Your task to perform on an android device: move an email to a new category in the gmail app Image 0: 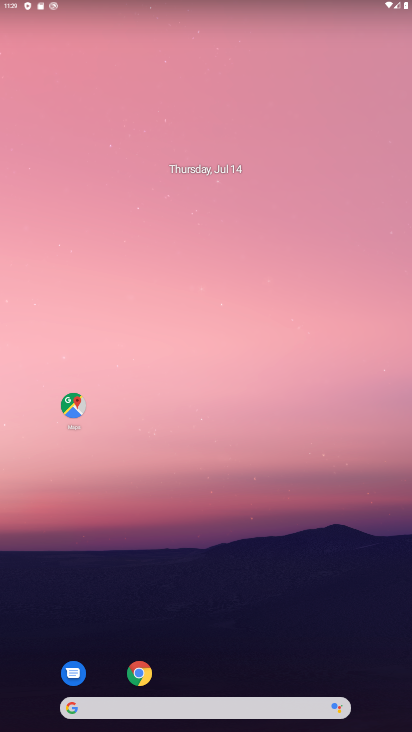
Step 0: drag from (248, 650) to (198, 109)
Your task to perform on an android device: move an email to a new category in the gmail app Image 1: 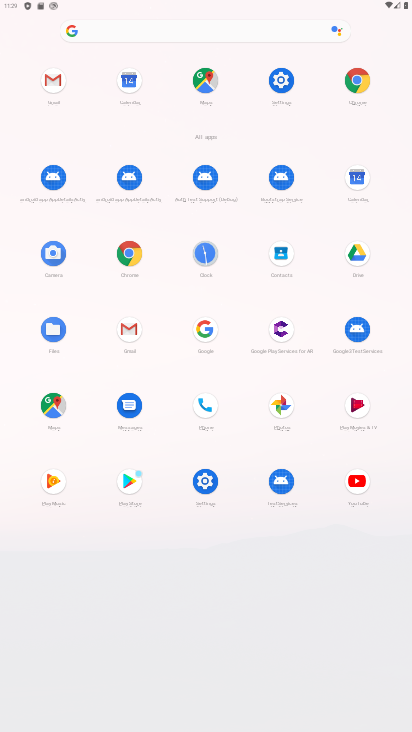
Step 1: click (49, 78)
Your task to perform on an android device: move an email to a new category in the gmail app Image 2: 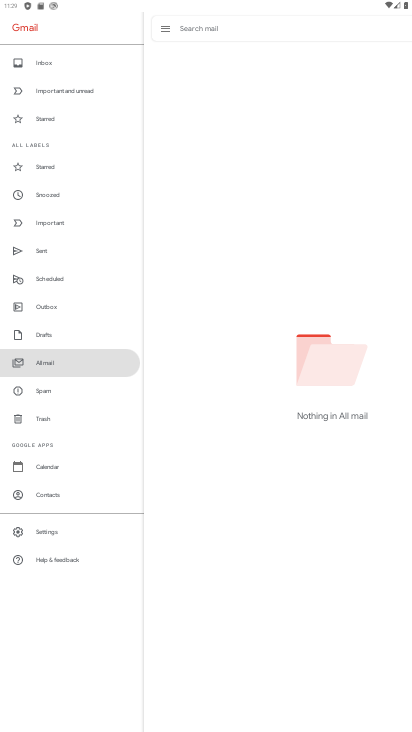
Step 2: click (77, 355)
Your task to perform on an android device: move an email to a new category in the gmail app Image 3: 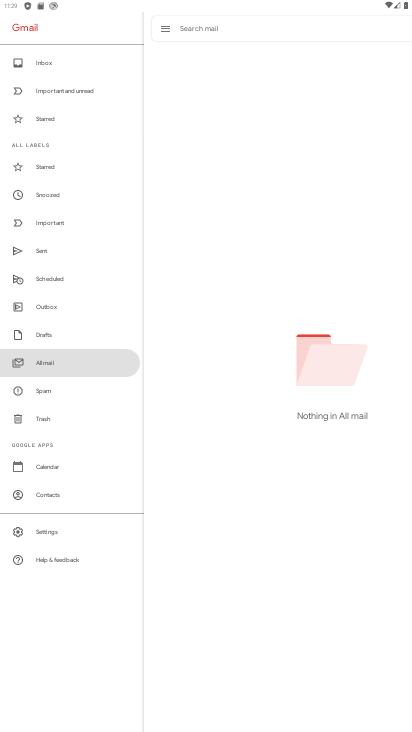
Step 3: task complete